Your task to perform on an android device: manage bookmarks in the chrome app Image 0: 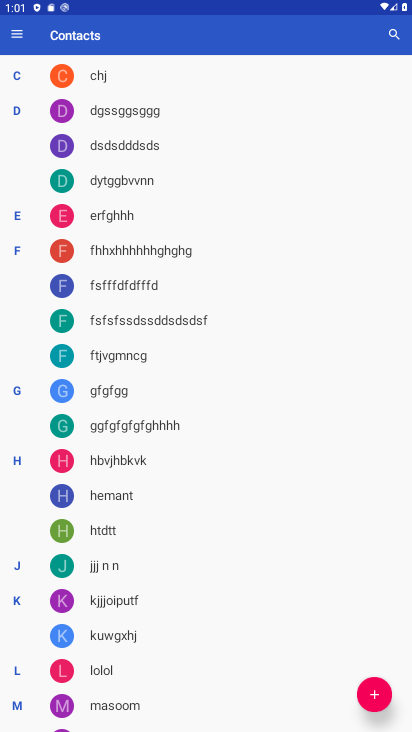
Step 0: task complete